Your task to perform on an android device: Open Google Chrome and open the bookmarks view Image 0: 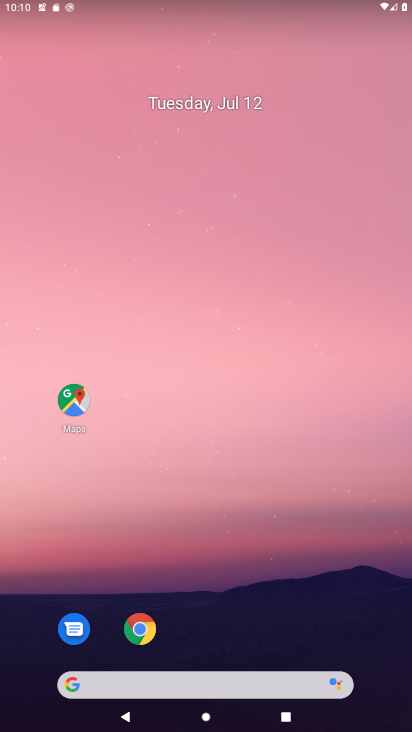
Step 0: drag from (202, 683) to (316, 49)
Your task to perform on an android device: Open Google Chrome and open the bookmarks view Image 1: 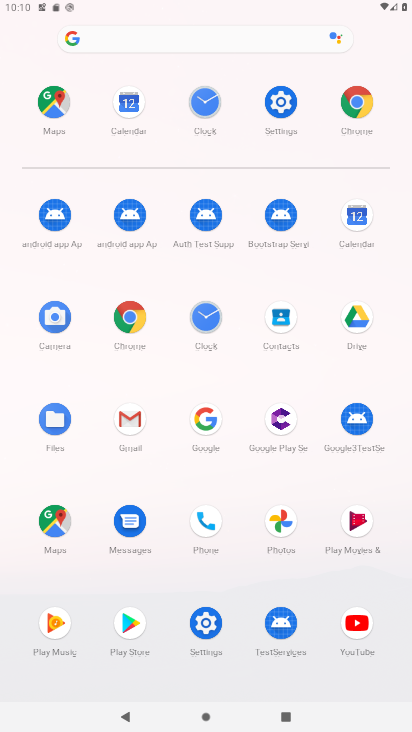
Step 1: click (131, 326)
Your task to perform on an android device: Open Google Chrome and open the bookmarks view Image 2: 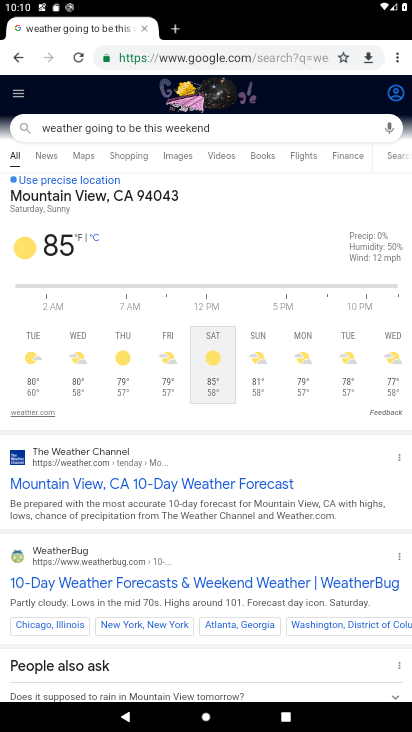
Step 2: task complete